Your task to perform on an android device: Check the news Image 0: 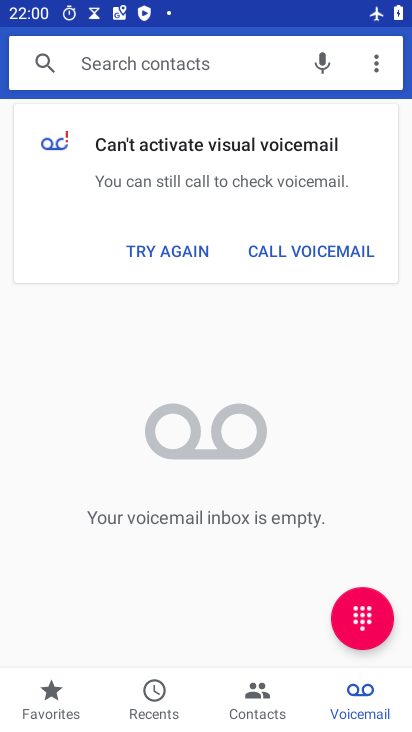
Step 0: press home button
Your task to perform on an android device: Check the news Image 1: 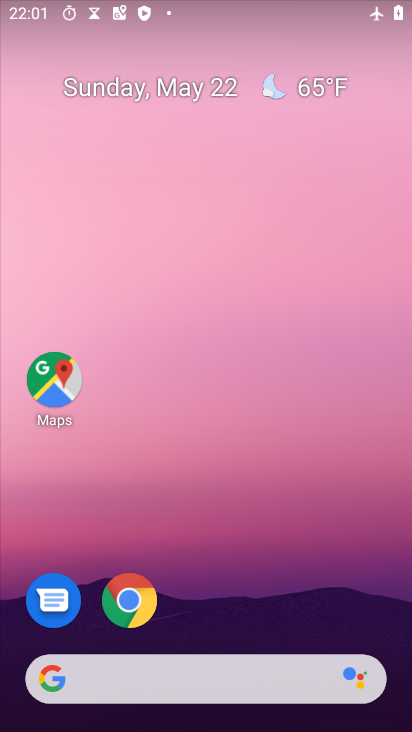
Step 1: click (318, 684)
Your task to perform on an android device: Check the news Image 2: 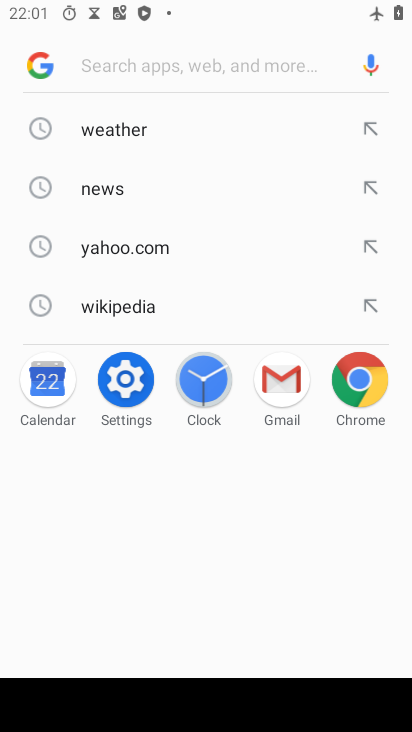
Step 2: click (109, 183)
Your task to perform on an android device: Check the news Image 3: 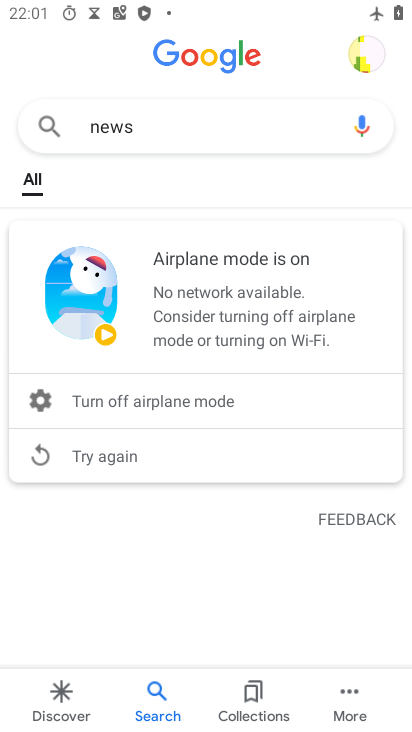
Step 3: task complete